Your task to perform on an android device: Find coffee shops on Maps Image 0: 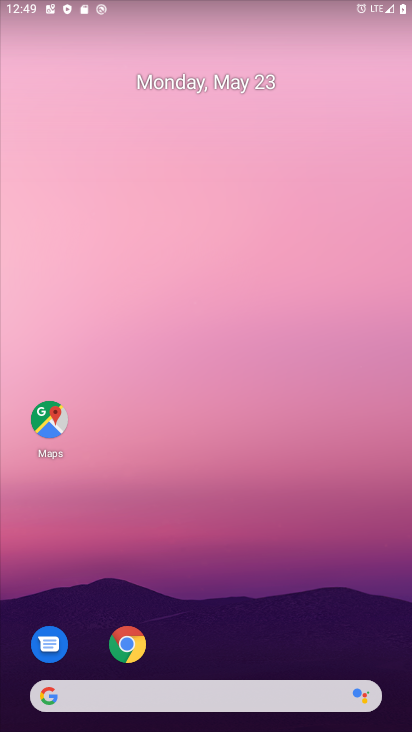
Step 0: drag from (349, 606) to (252, 78)
Your task to perform on an android device: Find coffee shops on Maps Image 1: 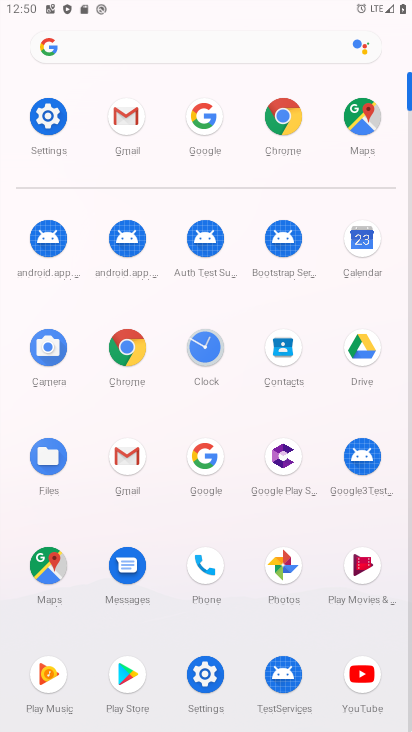
Step 1: click (39, 572)
Your task to perform on an android device: Find coffee shops on Maps Image 2: 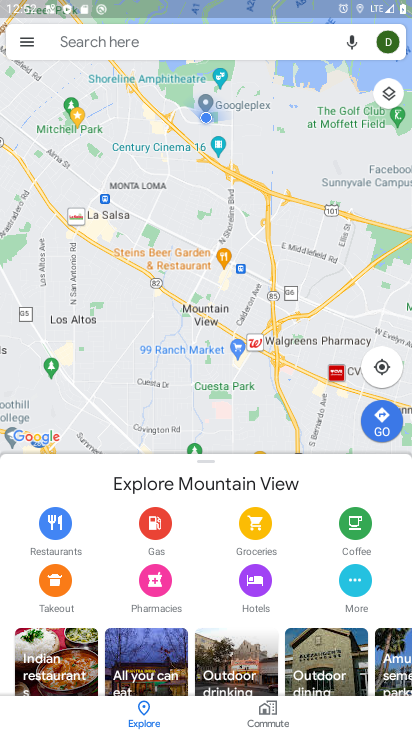
Step 2: click (139, 37)
Your task to perform on an android device: Find coffee shops on Maps Image 3: 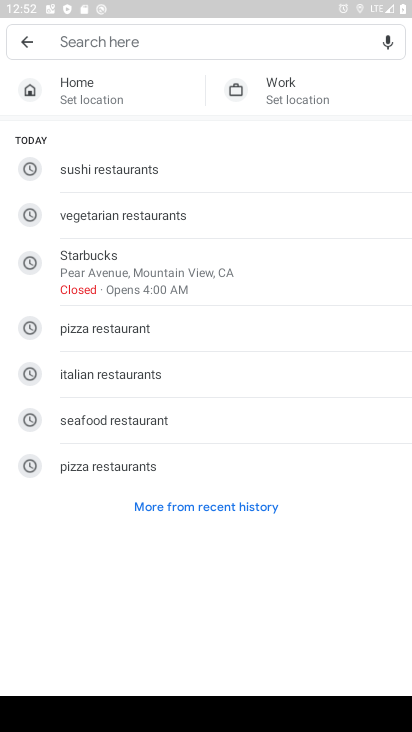
Step 3: type "coffee"
Your task to perform on an android device: Find coffee shops on Maps Image 4: 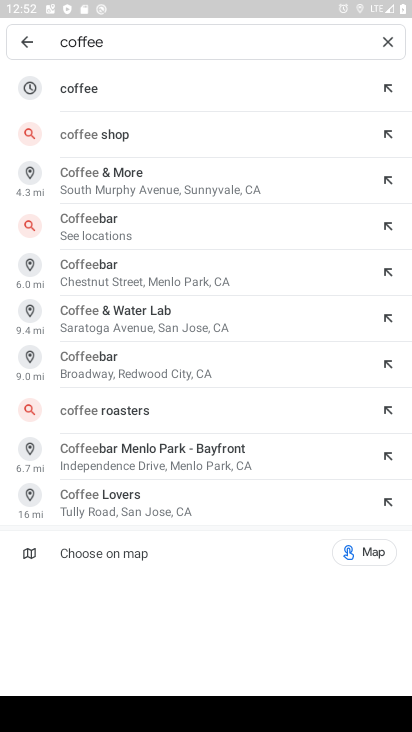
Step 4: click (99, 89)
Your task to perform on an android device: Find coffee shops on Maps Image 5: 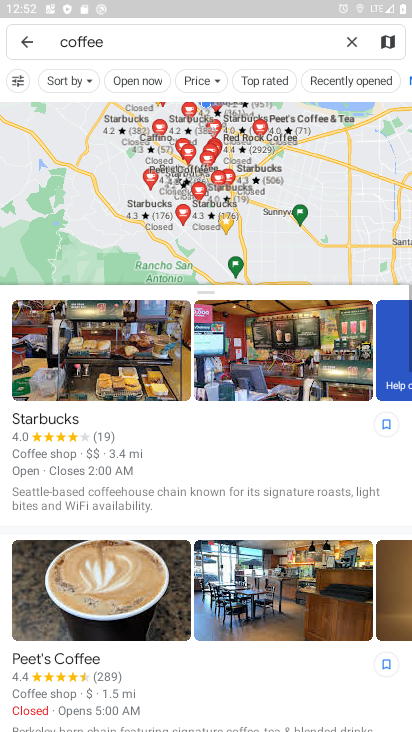
Step 5: task complete